Your task to perform on an android device: clear all cookies in the chrome app Image 0: 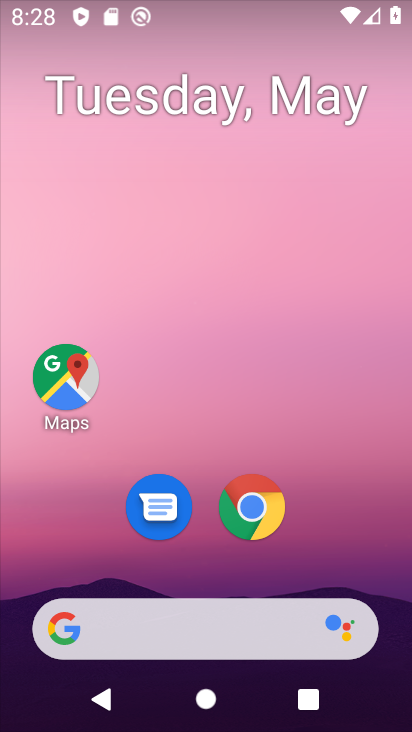
Step 0: click (258, 521)
Your task to perform on an android device: clear all cookies in the chrome app Image 1: 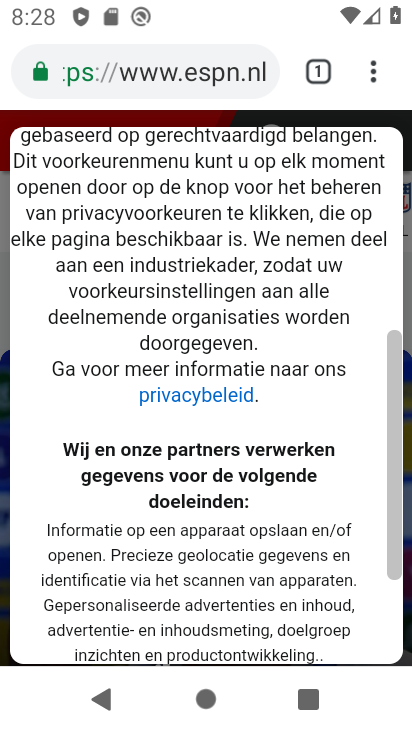
Step 1: click (373, 88)
Your task to perform on an android device: clear all cookies in the chrome app Image 2: 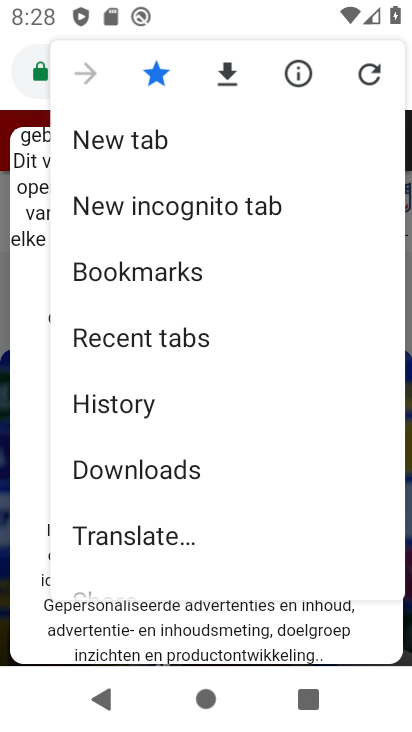
Step 2: drag from (215, 551) to (171, 310)
Your task to perform on an android device: clear all cookies in the chrome app Image 3: 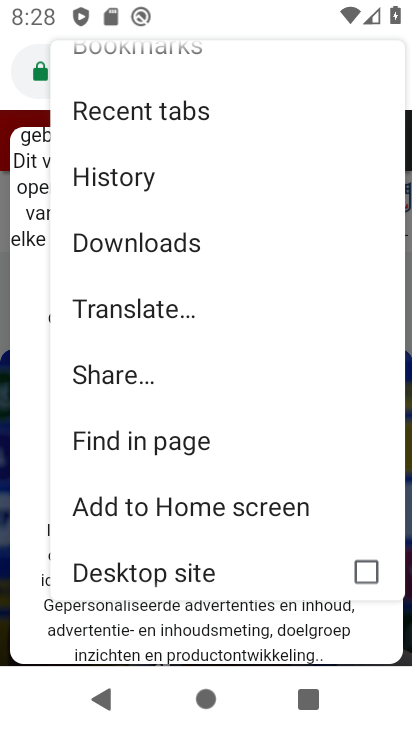
Step 3: click (122, 199)
Your task to perform on an android device: clear all cookies in the chrome app Image 4: 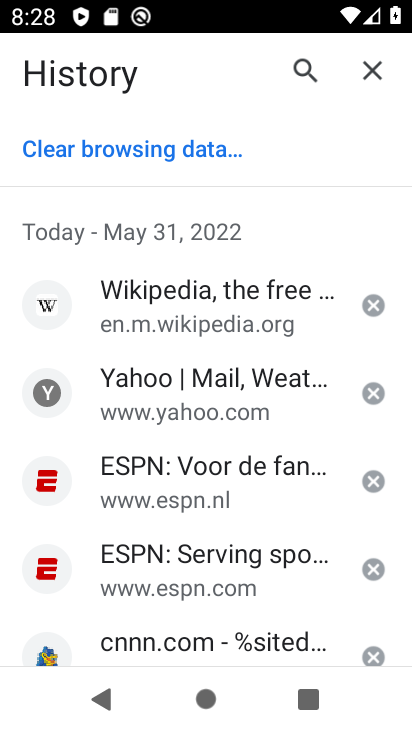
Step 4: click (107, 143)
Your task to perform on an android device: clear all cookies in the chrome app Image 5: 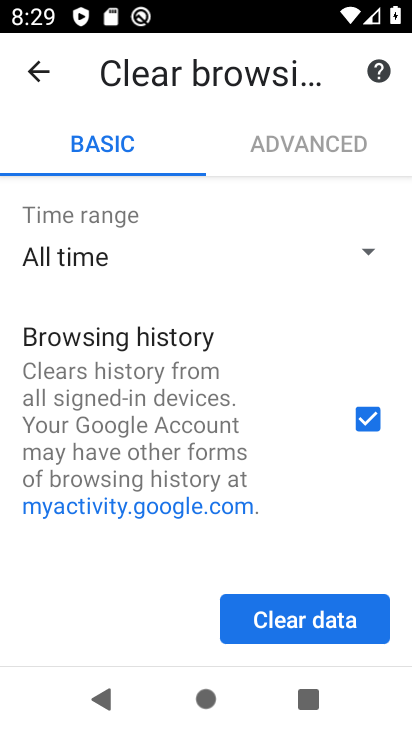
Step 5: click (370, 421)
Your task to perform on an android device: clear all cookies in the chrome app Image 6: 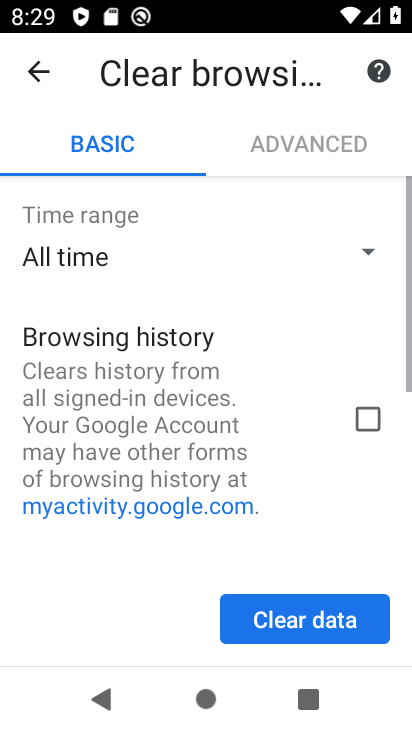
Step 6: drag from (290, 511) to (281, 212)
Your task to perform on an android device: clear all cookies in the chrome app Image 7: 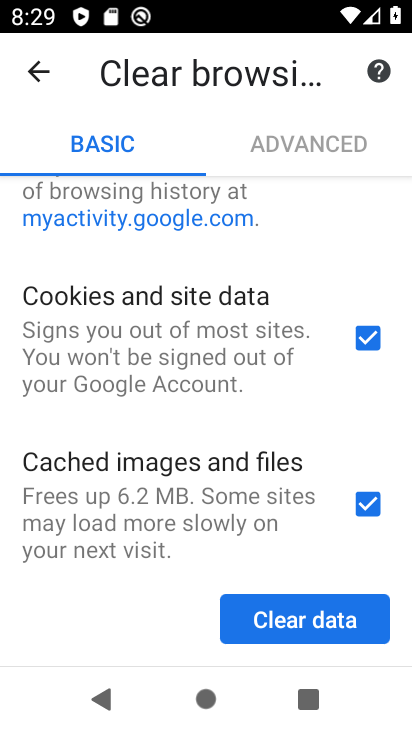
Step 7: click (368, 509)
Your task to perform on an android device: clear all cookies in the chrome app Image 8: 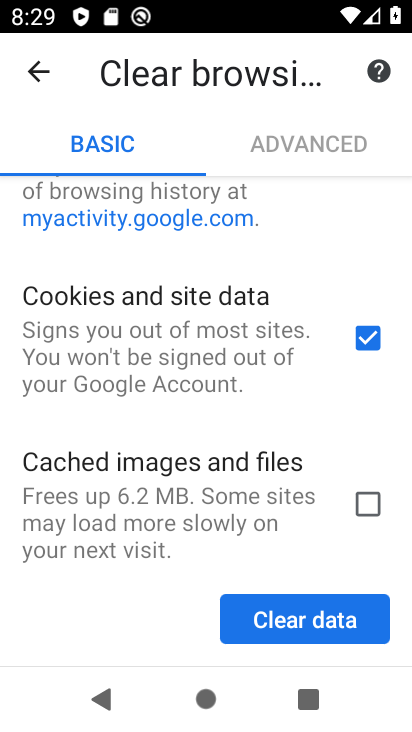
Step 8: click (322, 629)
Your task to perform on an android device: clear all cookies in the chrome app Image 9: 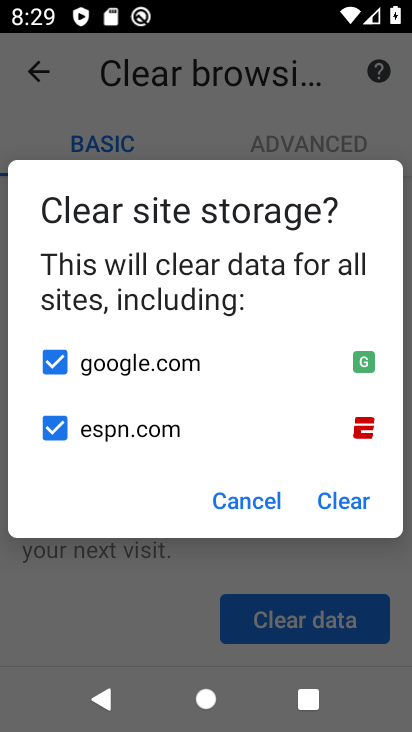
Step 9: click (351, 509)
Your task to perform on an android device: clear all cookies in the chrome app Image 10: 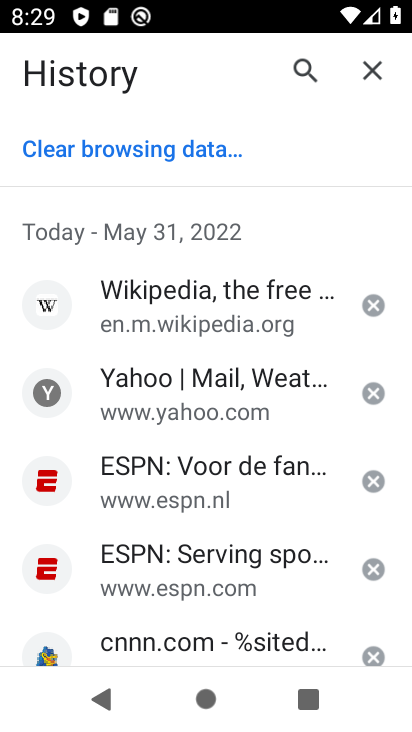
Step 10: task complete